Your task to perform on an android device: What's on my calendar today? Image 0: 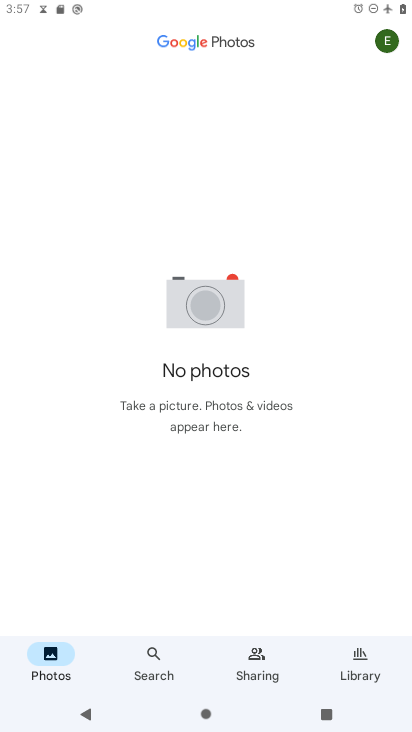
Step 0: press home button
Your task to perform on an android device: What's on my calendar today? Image 1: 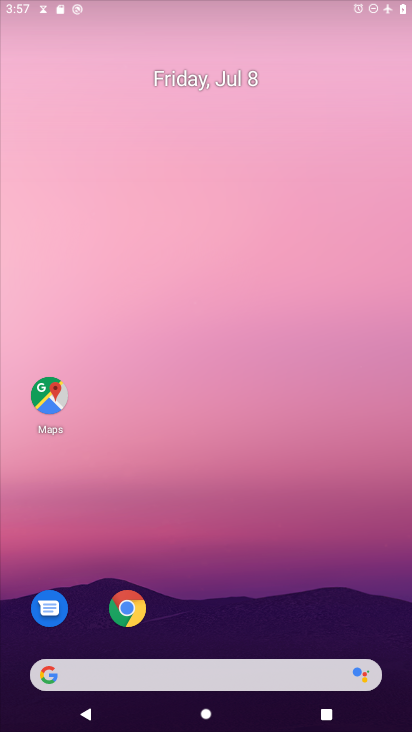
Step 1: drag from (260, 640) to (269, 3)
Your task to perform on an android device: What's on my calendar today? Image 2: 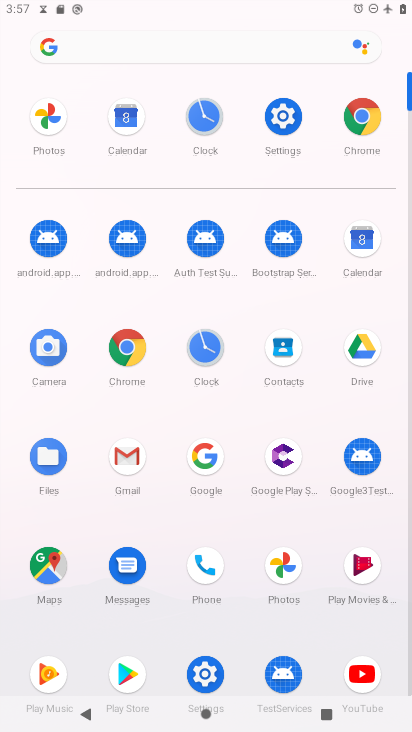
Step 2: click (363, 245)
Your task to perform on an android device: What's on my calendar today? Image 3: 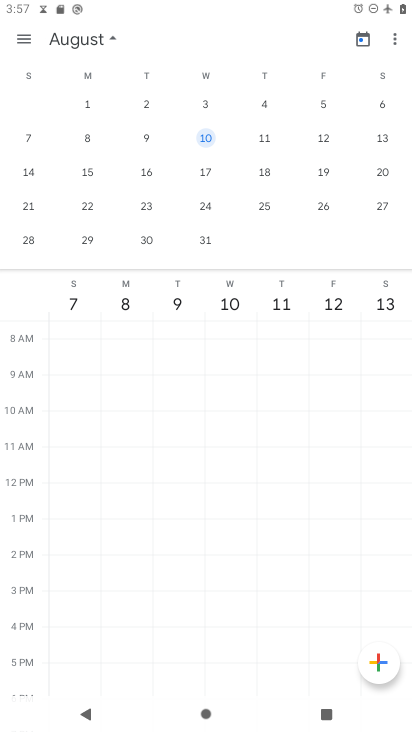
Step 3: press home button
Your task to perform on an android device: What's on my calendar today? Image 4: 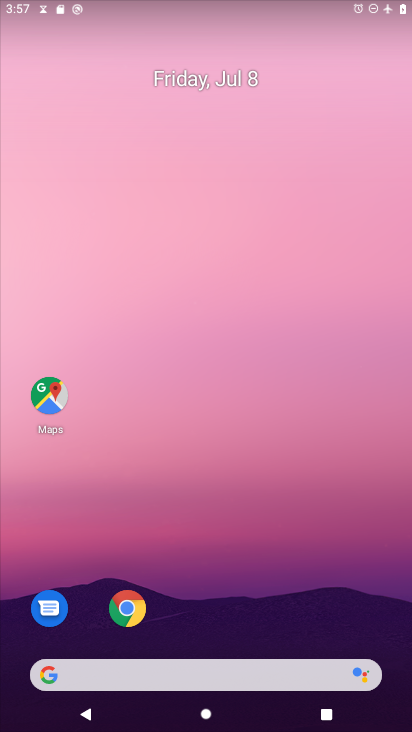
Step 4: drag from (263, 613) to (242, 0)
Your task to perform on an android device: What's on my calendar today? Image 5: 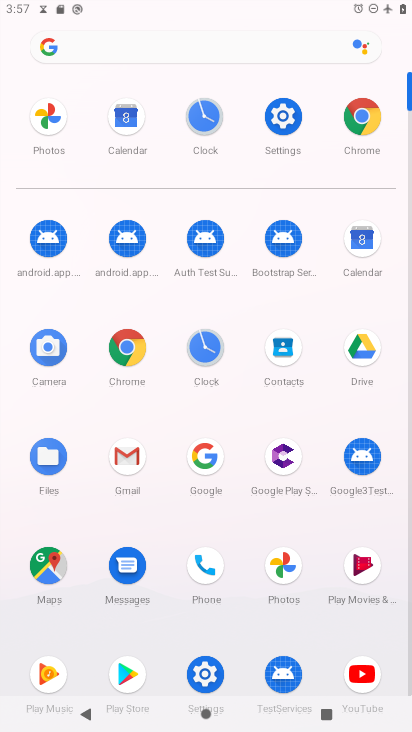
Step 5: click (367, 240)
Your task to perform on an android device: What's on my calendar today? Image 6: 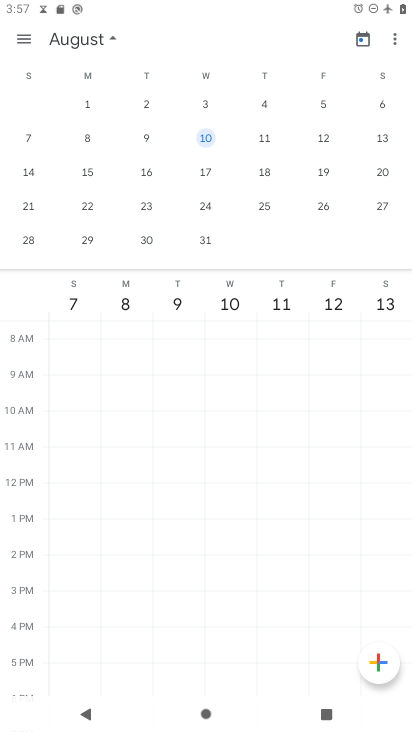
Step 6: drag from (46, 125) to (366, 206)
Your task to perform on an android device: What's on my calendar today? Image 7: 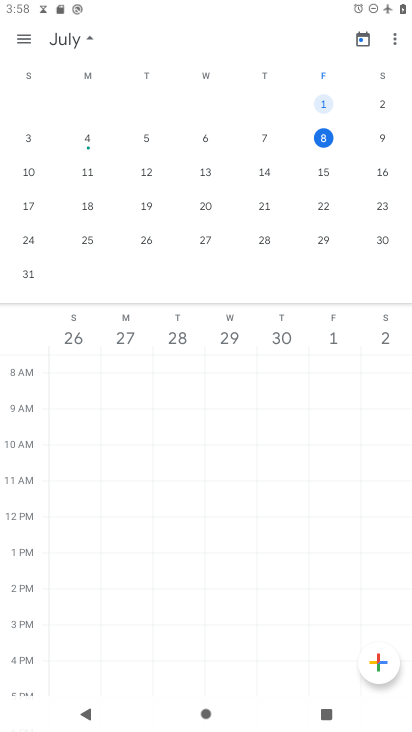
Step 7: click (322, 139)
Your task to perform on an android device: What's on my calendar today? Image 8: 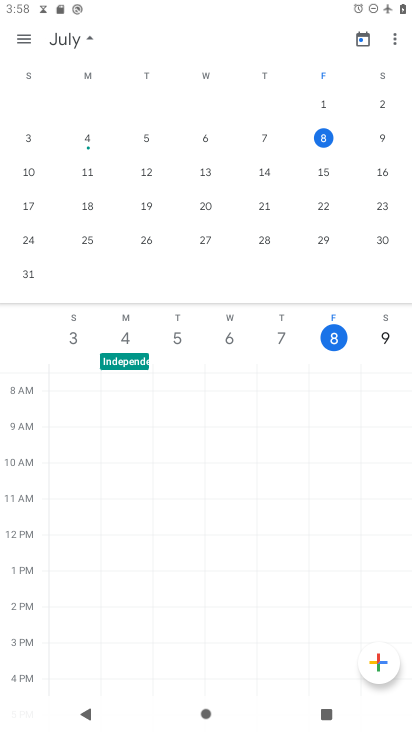
Step 8: task complete